Your task to perform on an android device: Open CNN.com Image 0: 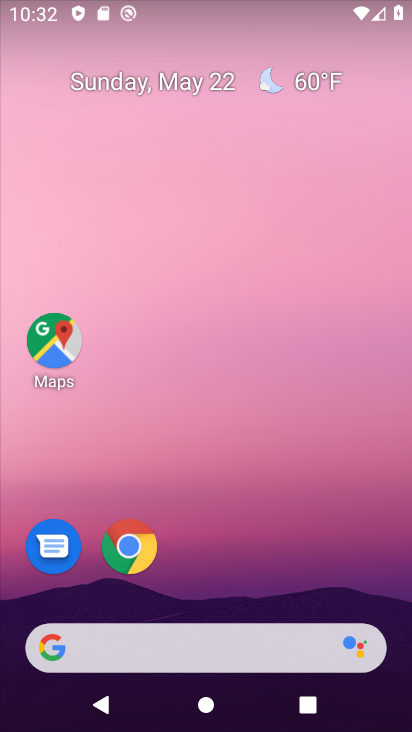
Step 0: click (126, 547)
Your task to perform on an android device: Open CNN.com Image 1: 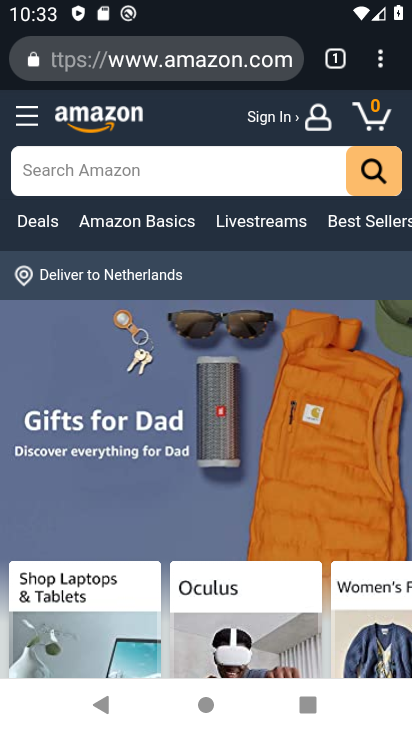
Step 1: click (383, 63)
Your task to perform on an android device: Open CNN.com Image 2: 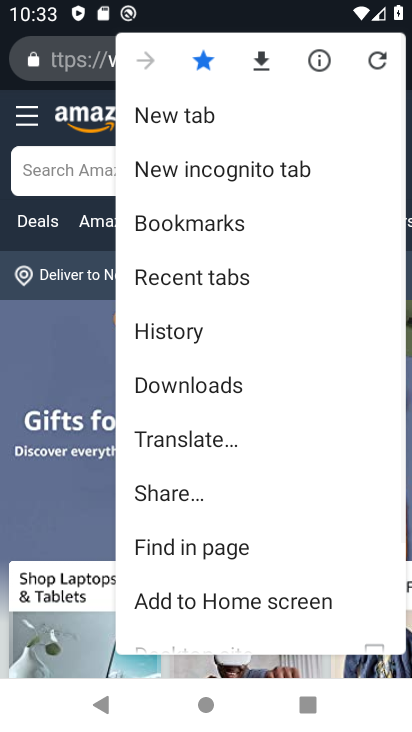
Step 2: click (178, 112)
Your task to perform on an android device: Open CNN.com Image 3: 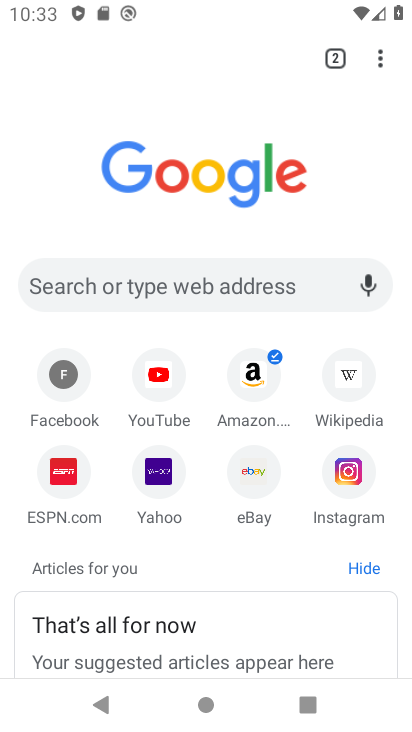
Step 3: click (163, 293)
Your task to perform on an android device: Open CNN.com Image 4: 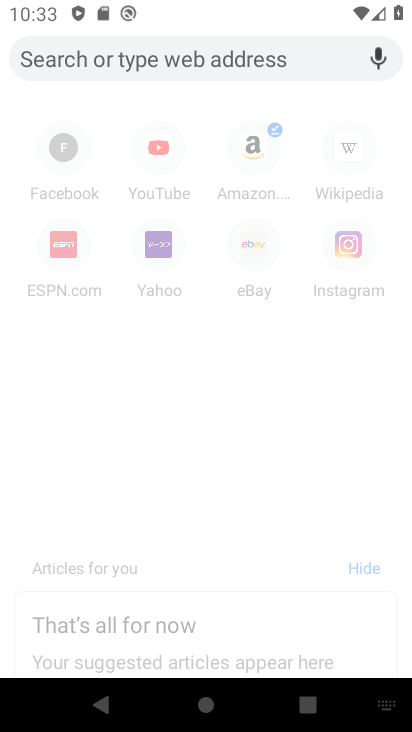
Step 4: type "CNN.com"
Your task to perform on an android device: Open CNN.com Image 5: 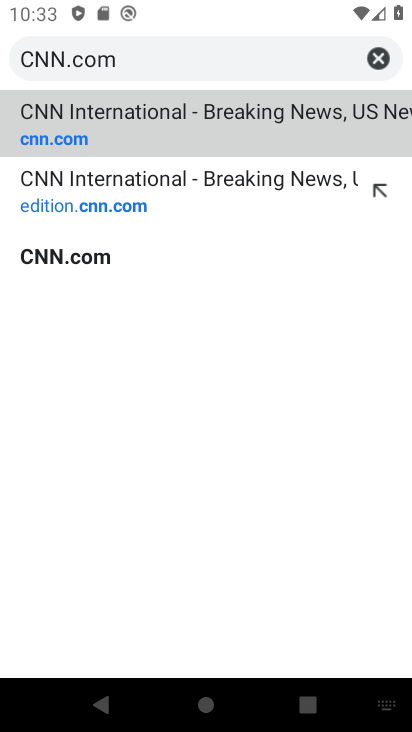
Step 5: click (73, 116)
Your task to perform on an android device: Open CNN.com Image 6: 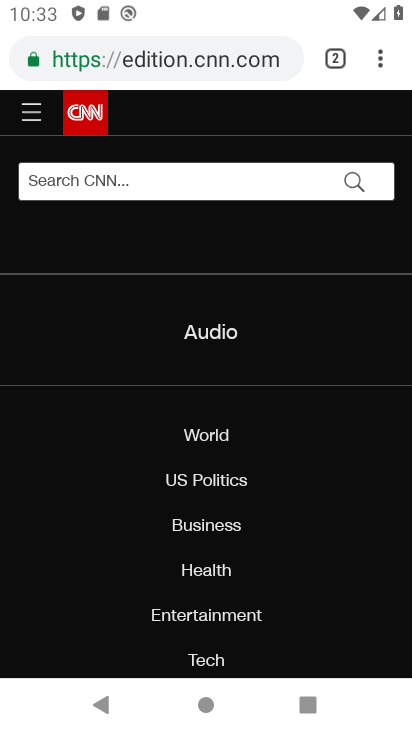
Step 6: task complete